Your task to perform on an android device: Go to Amazon Image 0: 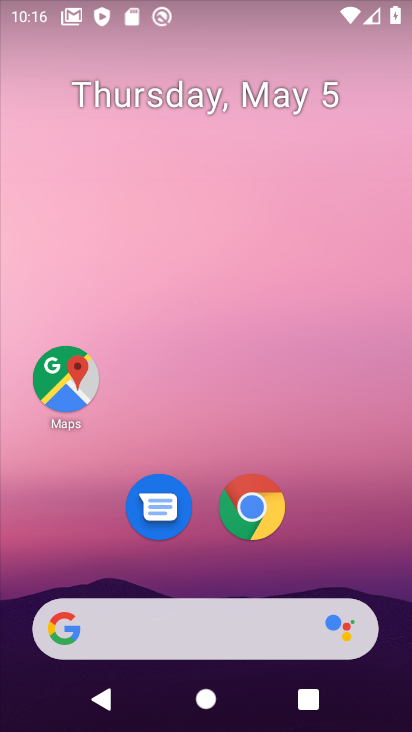
Step 0: click (261, 523)
Your task to perform on an android device: Go to Amazon Image 1: 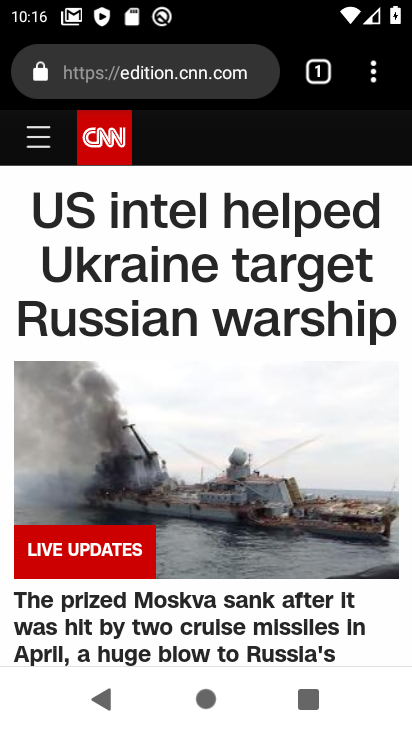
Step 1: click (141, 78)
Your task to perform on an android device: Go to Amazon Image 2: 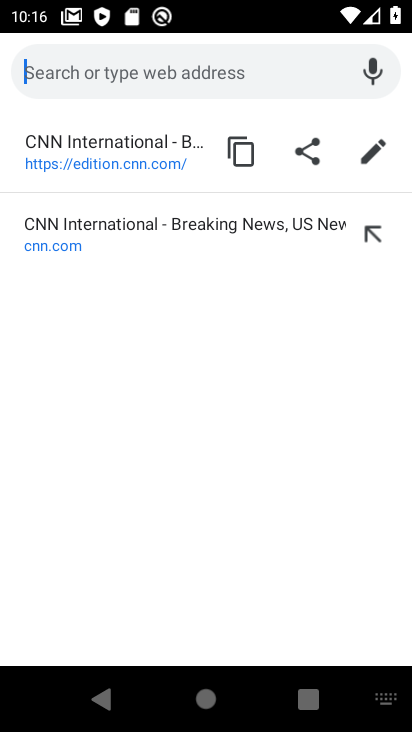
Step 2: type "amazon"
Your task to perform on an android device: Go to Amazon Image 3: 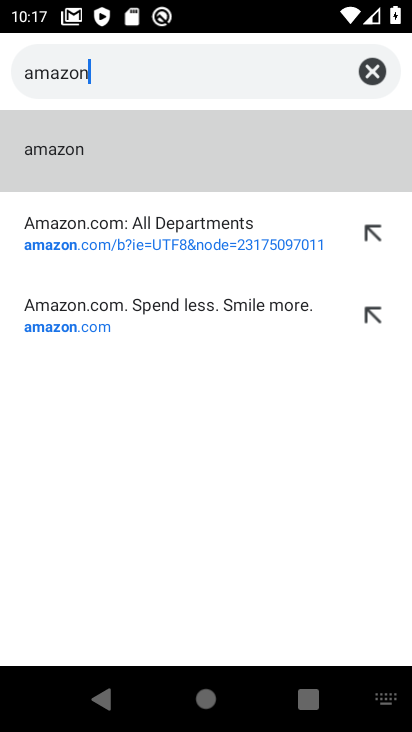
Step 3: click (71, 153)
Your task to perform on an android device: Go to Amazon Image 4: 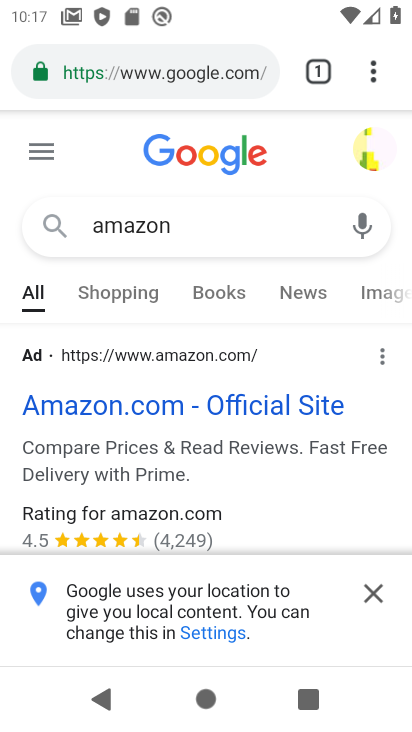
Step 4: click (114, 417)
Your task to perform on an android device: Go to Amazon Image 5: 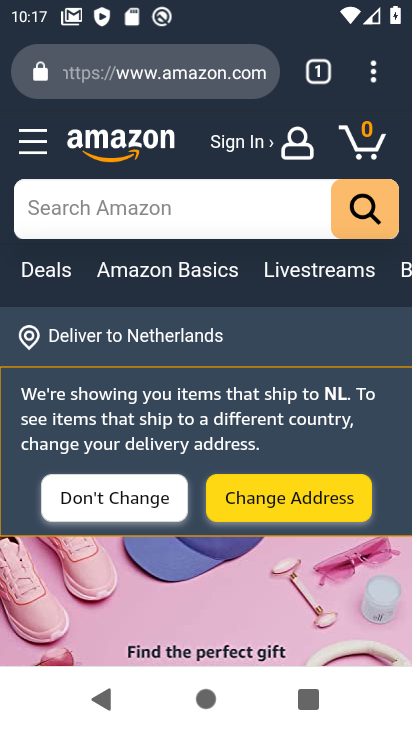
Step 5: task complete